Your task to perform on an android device: turn off notifications settings in the gmail app Image 0: 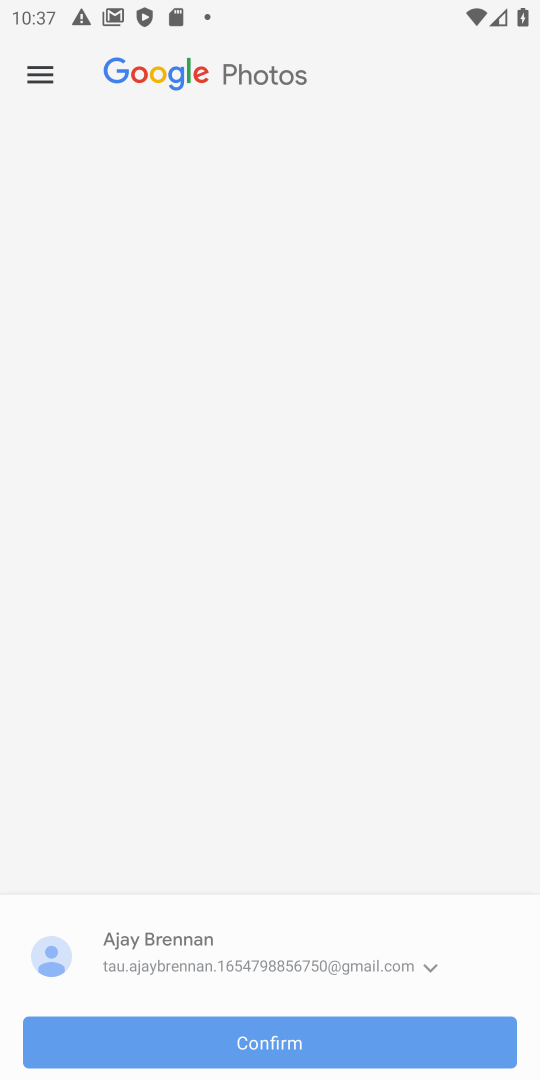
Step 0: press home button
Your task to perform on an android device: turn off notifications settings in the gmail app Image 1: 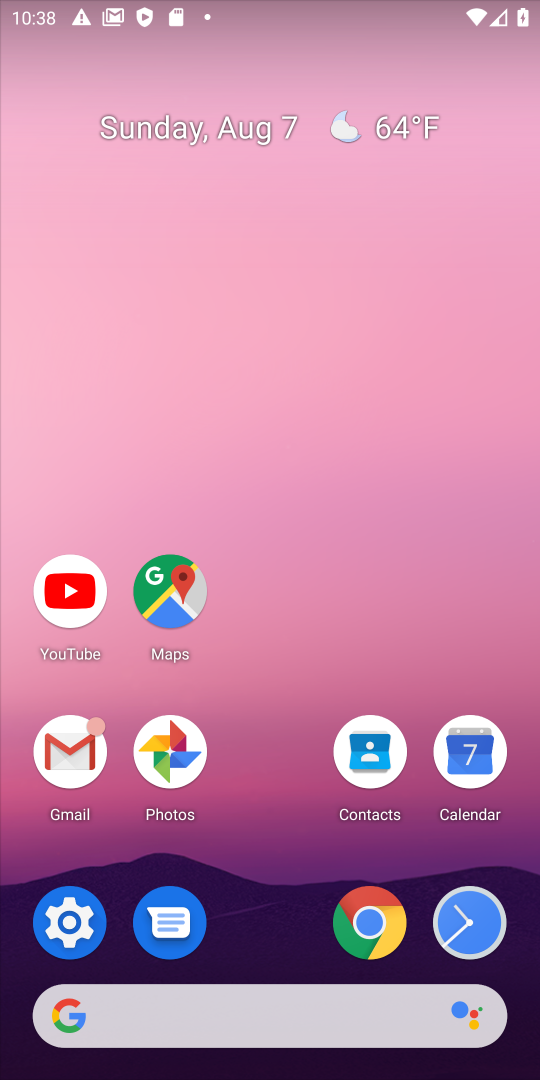
Step 1: click (71, 759)
Your task to perform on an android device: turn off notifications settings in the gmail app Image 2: 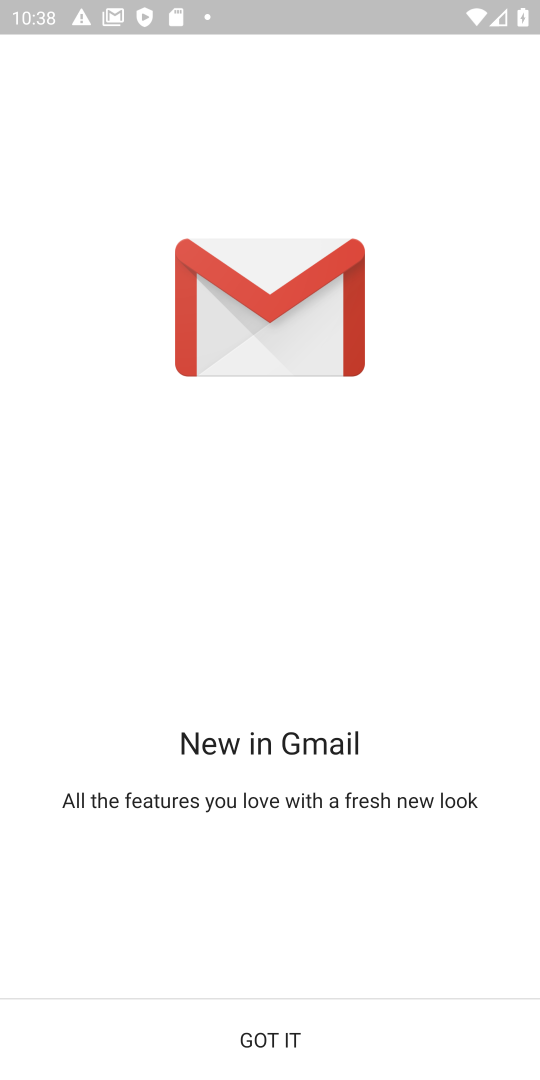
Step 2: click (283, 1041)
Your task to perform on an android device: turn off notifications settings in the gmail app Image 3: 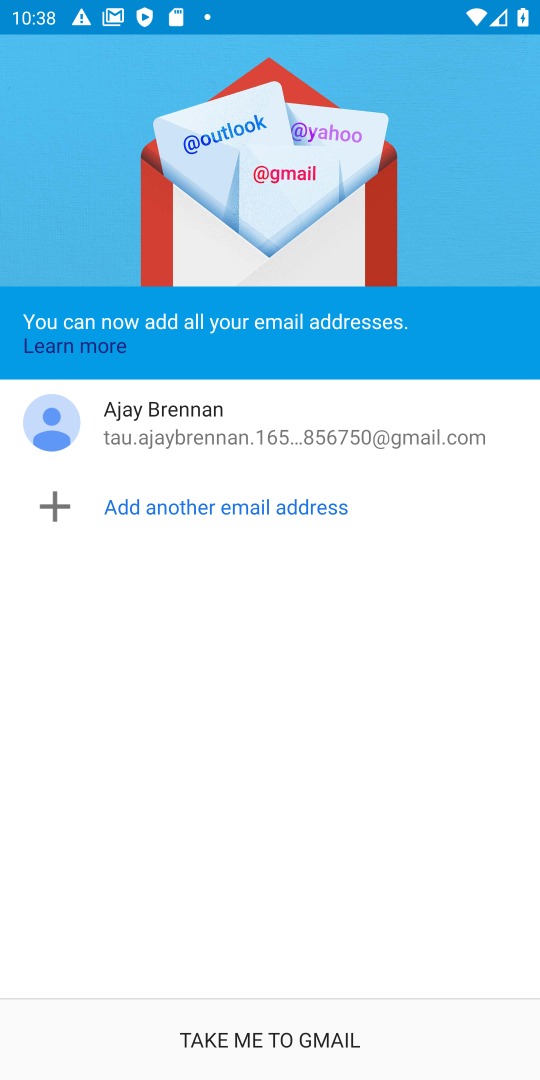
Step 3: click (277, 1051)
Your task to perform on an android device: turn off notifications settings in the gmail app Image 4: 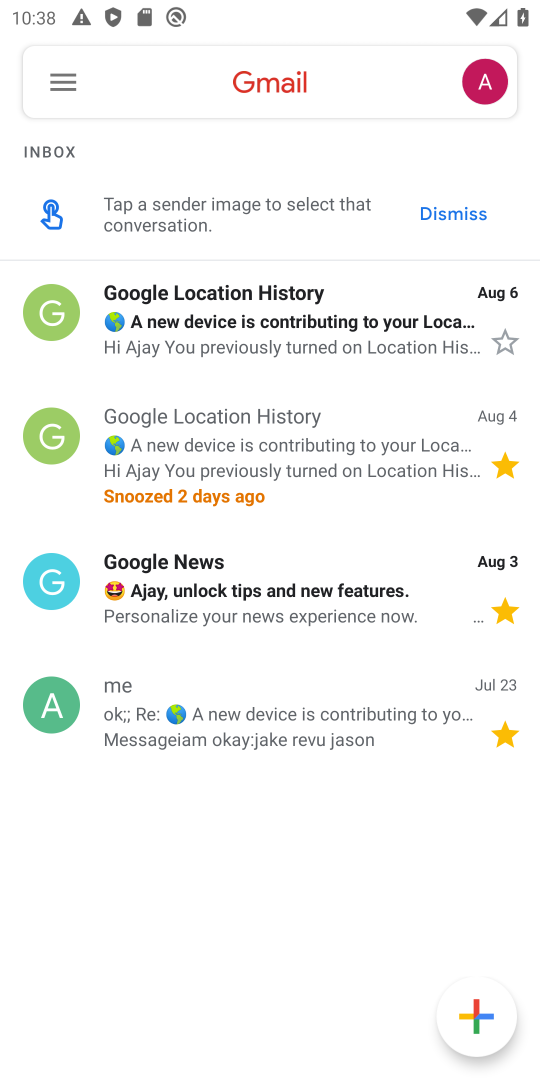
Step 4: click (71, 76)
Your task to perform on an android device: turn off notifications settings in the gmail app Image 5: 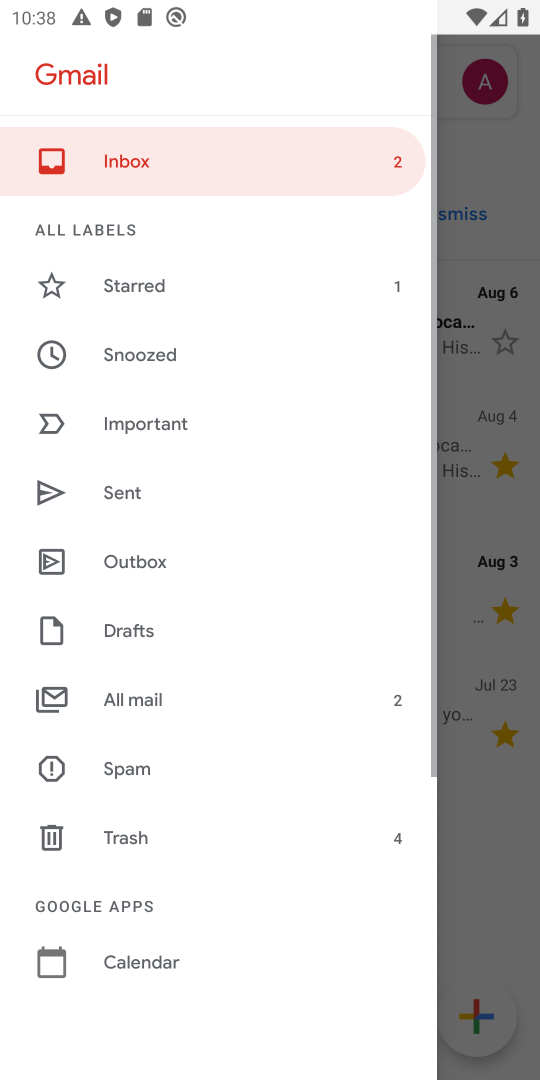
Step 5: click (129, 363)
Your task to perform on an android device: turn off notifications settings in the gmail app Image 6: 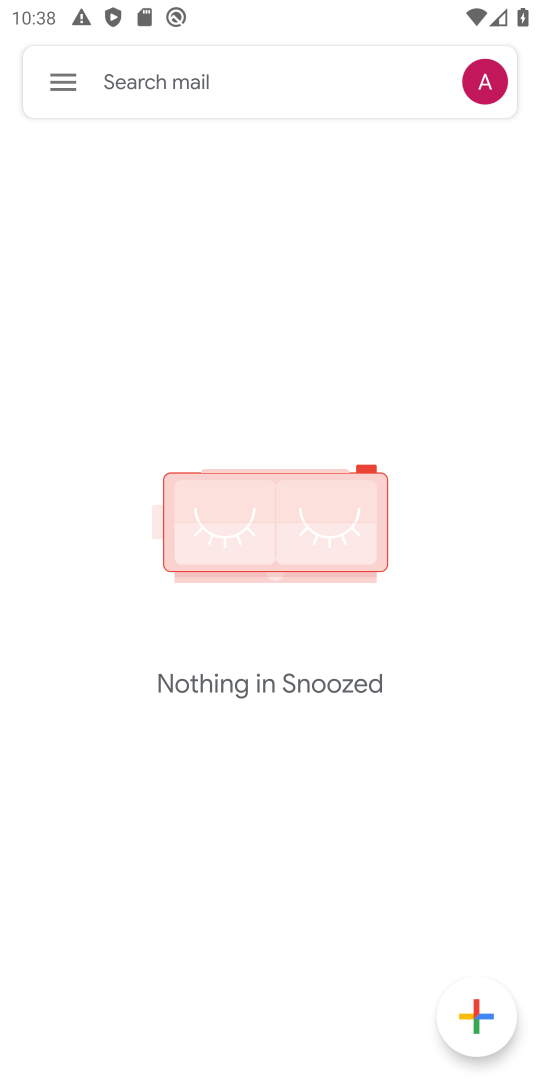
Step 6: click (57, 90)
Your task to perform on an android device: turn off notifications settings in the gmail app Image 7: 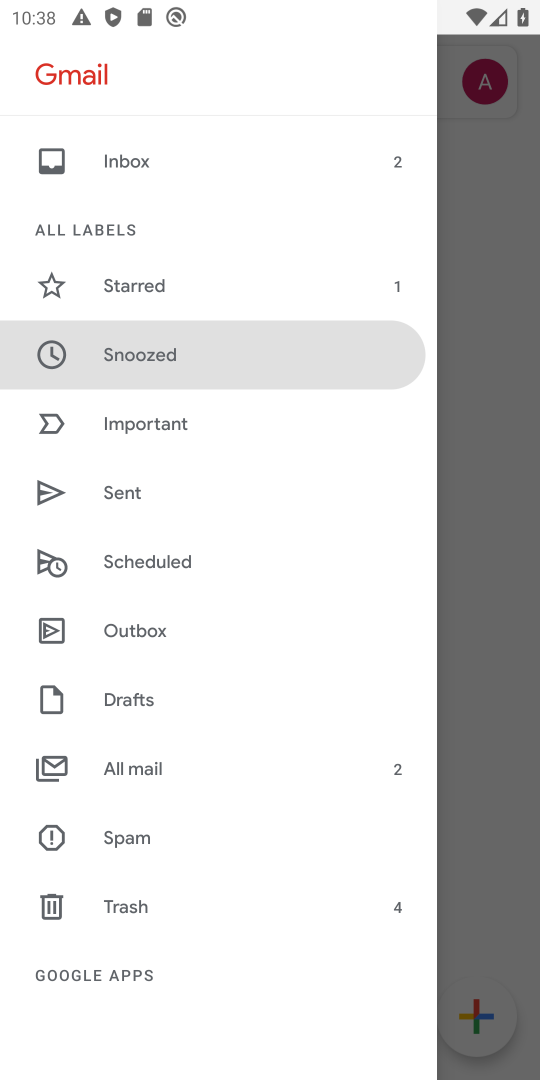
Step 7: drag from (241, 969) to (234, 363)
Your task to perform on an android device: turn off notifications settings in the gmail app Image 8: 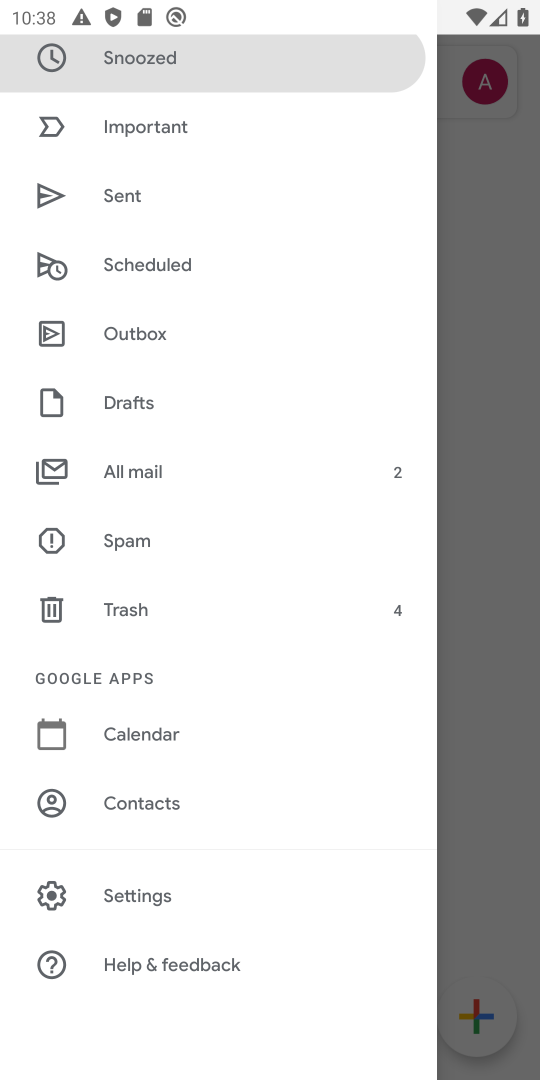
Step 8: click (131, 899)
Your task to perform on an android device: turn off notifications settings in the gmail app Image 9: 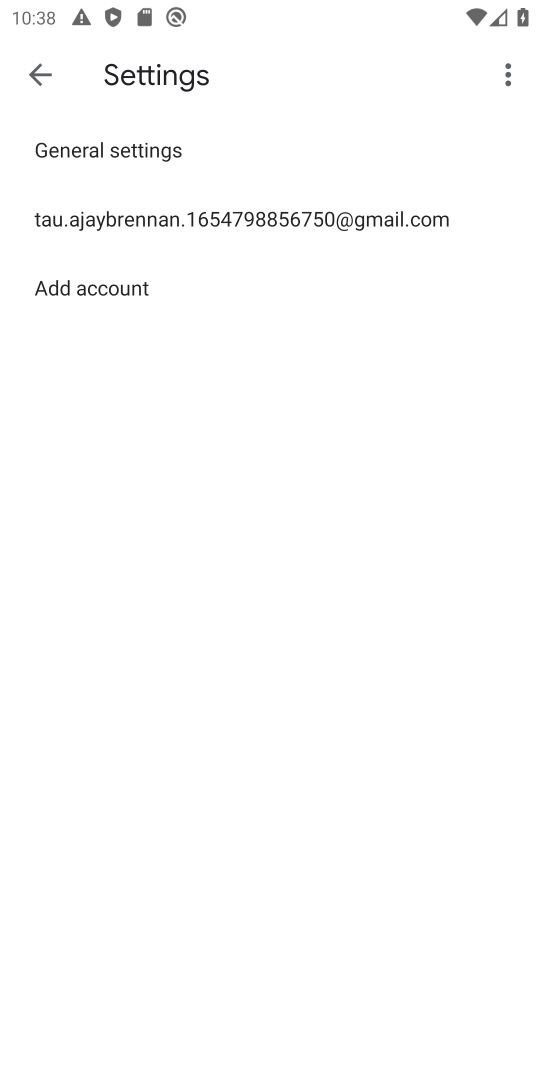
Step 9: click (91, 147)
Your task to perform on an android device: turn off notifications settings in the gmail app Image 10: 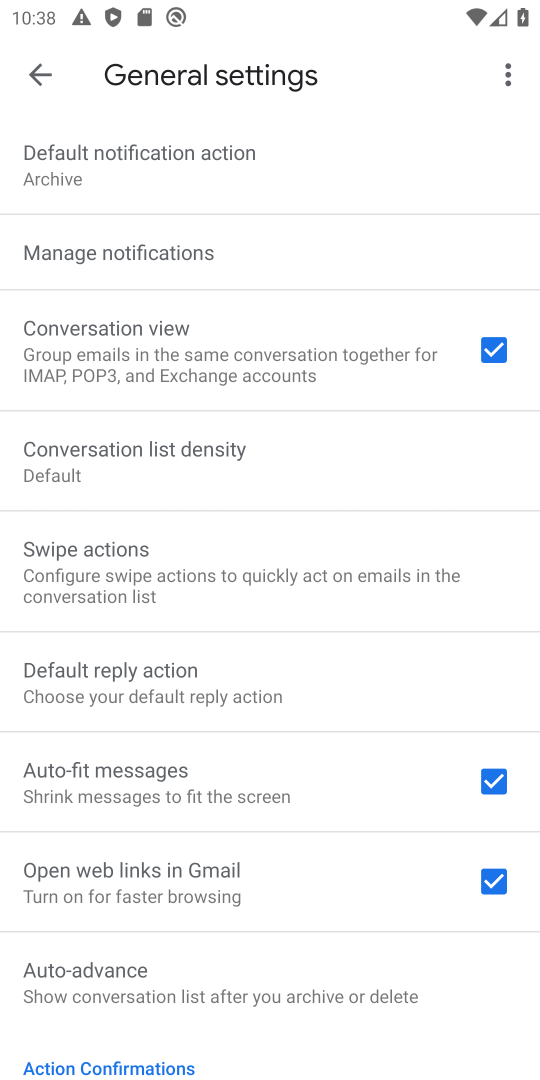
Step 10: click (144, 249)
Your task to perform on an android device: turn off notifications settings in the gmail app Image 11: 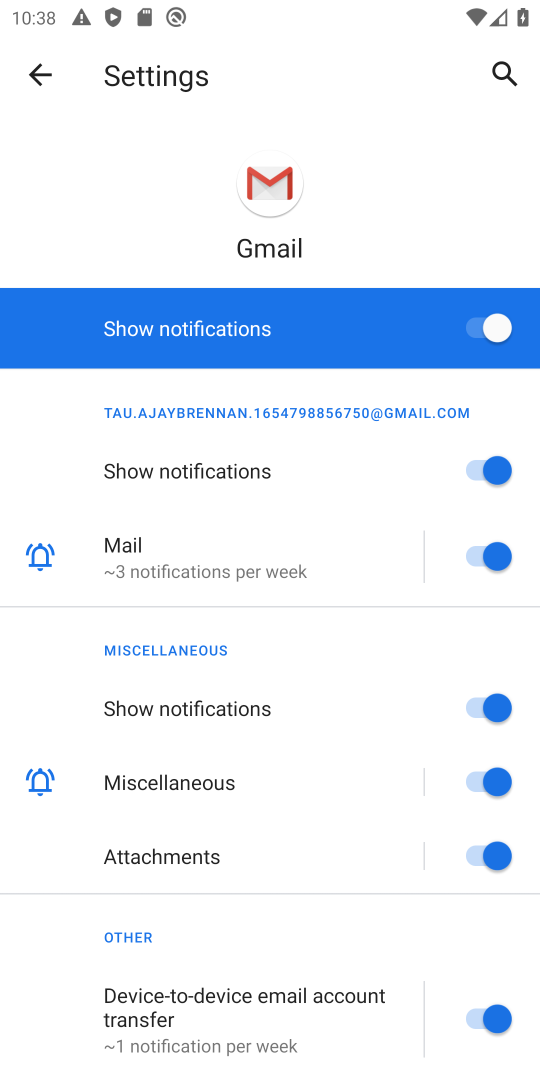
Step 11: click (499, 325)
Your task to perform on an android device: turn off notifications settings in the gmail app Image 12: 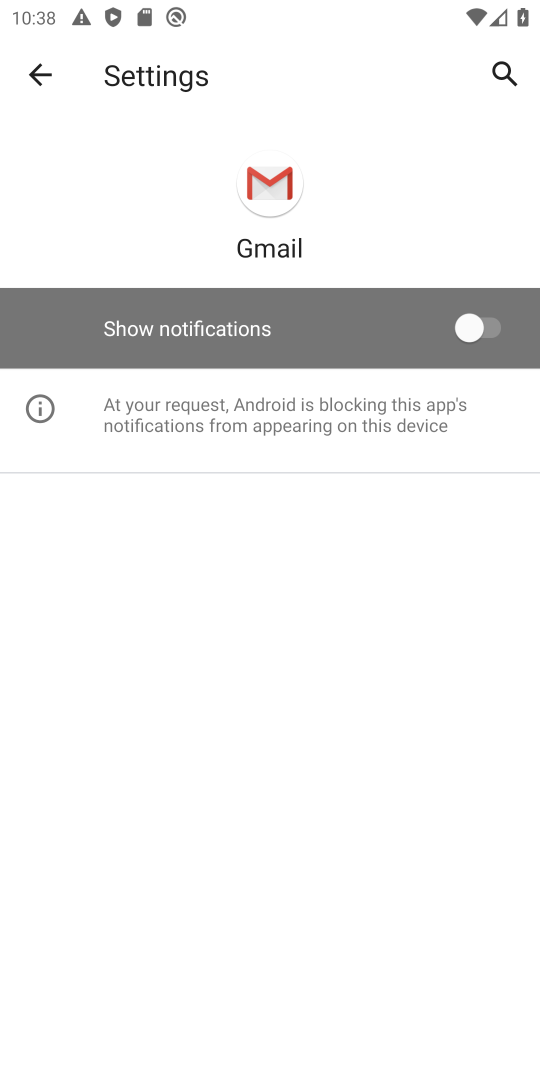
Step 12: task complete